Your task to perform on an android device: turn off location history Image 0: 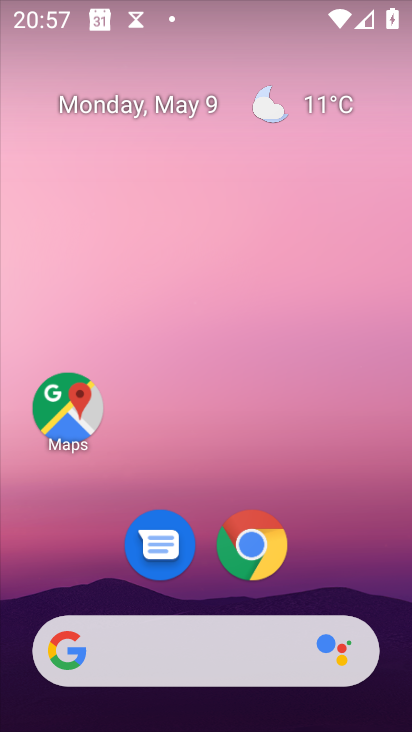
Step 0: drag from (201, 726) to (190, 134)
Your task to perform on an android device: turn off location history Image 1: 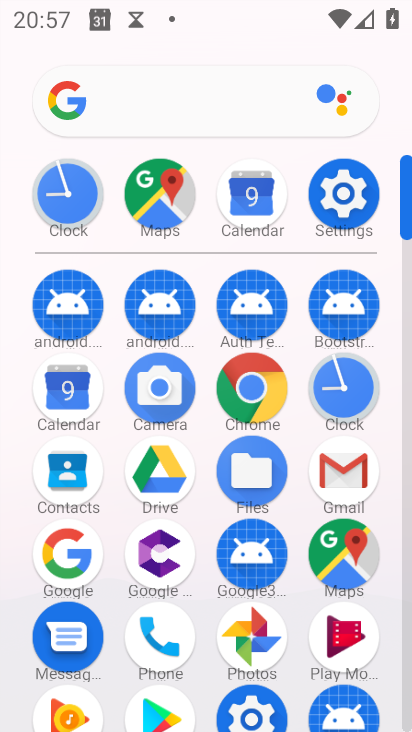
Step 1: click (359, 192)
Your task to perform on an android device: turn off location history Image 2: 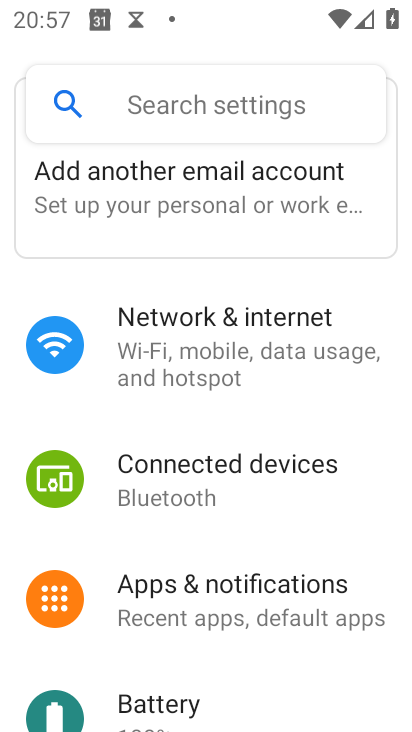
Step 2: drag from (192, 665) to (228, 339)
Your task to perform on an android device: turn off location history Image 3: 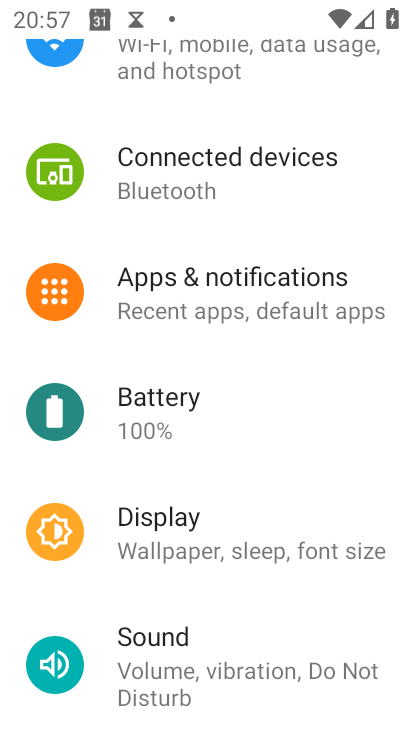
Step 3: drag from (234, 697) to (237, 337)
Your task to perform on an android device: turn off location history Image 4: 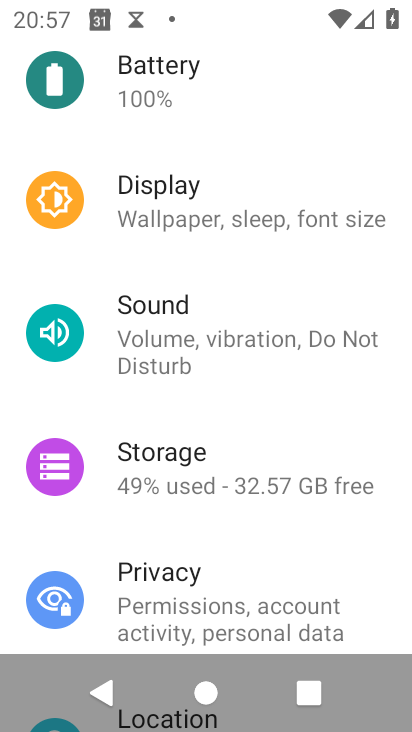
Step 4: drag from (214, 625) to (214, 363)
Your task to perform on an android device: turn off location history Image 5: 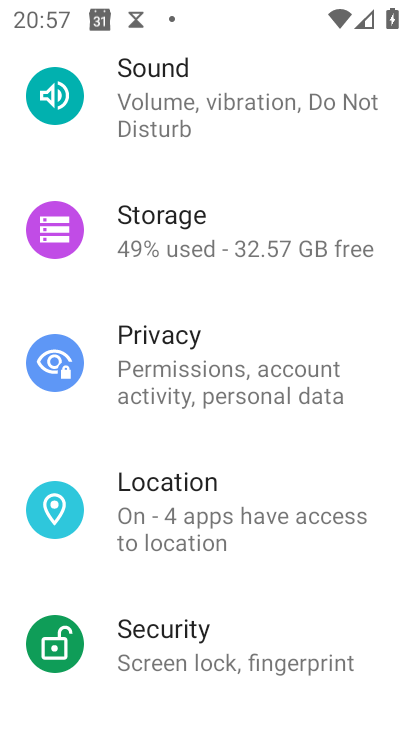
Step 5: click (181, 500)
Your task to perform on an android device: turn off location history Image 6: 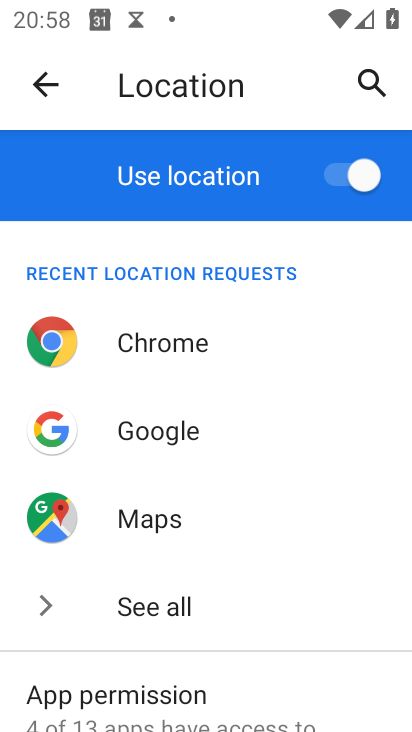
Step 6: drag from (230, 692) to (197, 366)
Your task to perform on an android device: turn off location history Image 7: 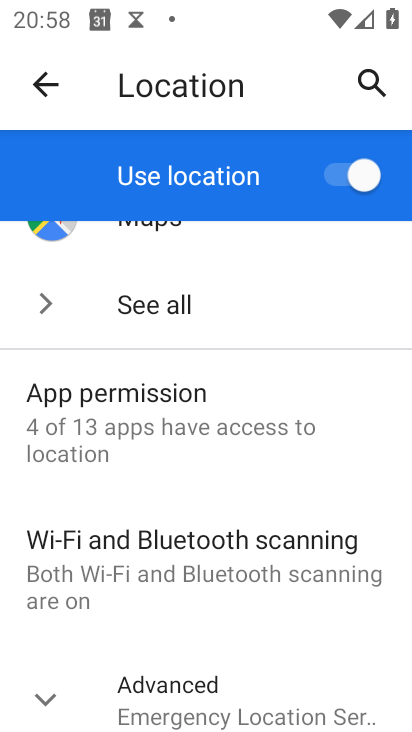
Step 7: drag from (168, 658) to (162, 352)
Your task to perform on an android device: turn off location history Image 8: 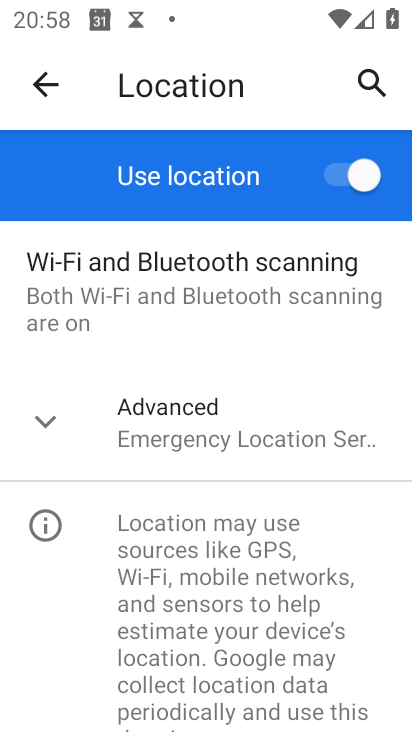
Step 8: click (170, 419)
Your task to perform on an android device: turn off location history Image 9: 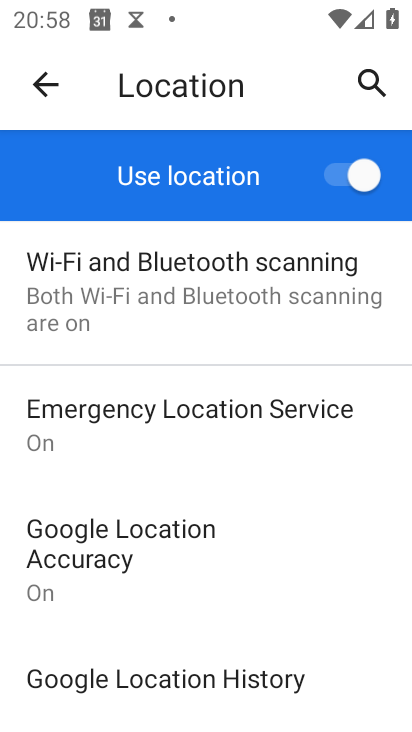
Step 9: drag from (222, 686) to (224, 476)
Your task to perform on an android device: turn off location history Image 10: 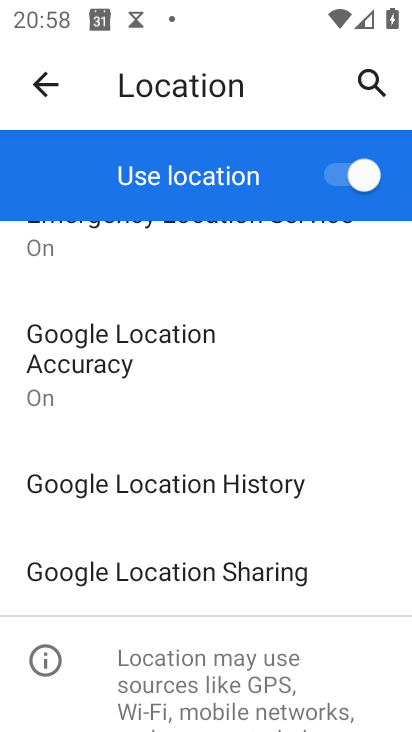
Step 10: click (214, 487)
Your task to perform on an android device: turn off location history Image 11: 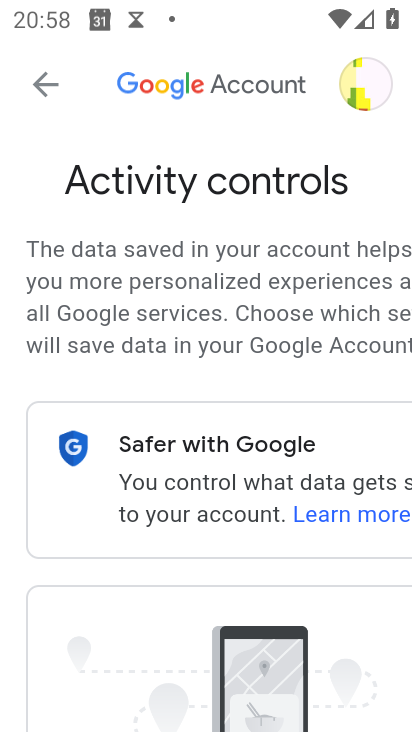
Step 11: task complete